Your task to perform on an android device: Open battery settings Image 0: 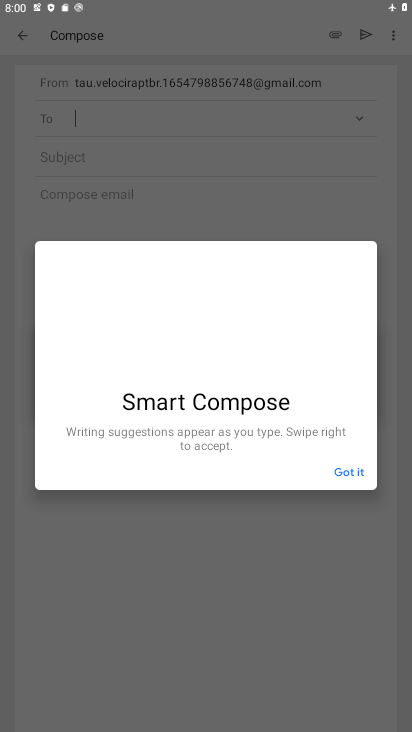
Step 0: press home button
Your task to perform on an android device: Open battery settings Image 1: 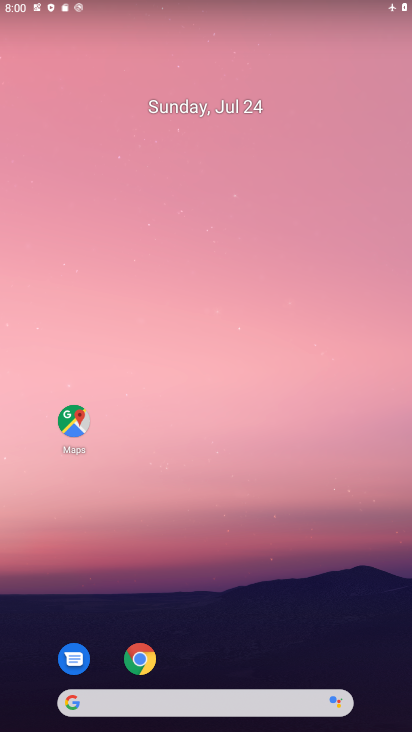
Step 1: drag from (230, 640) to (249, 187)
Your task to perform on an android device: Open battery settings Image 2: 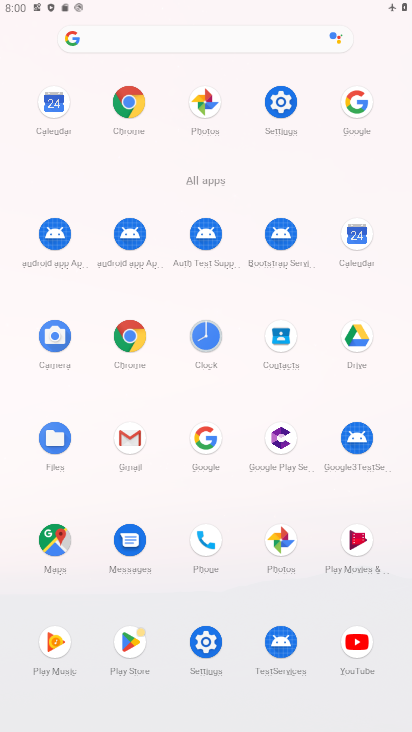
Step 2: click (284, 96)
Your task to perform on an android device: Open battery settings Image 3: 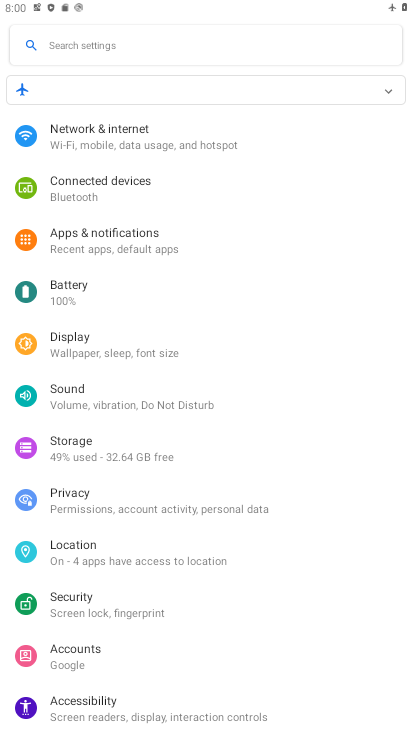
Step 3: click (61, 294)
Your task to perform on an android device: Open battery settings Image 4: 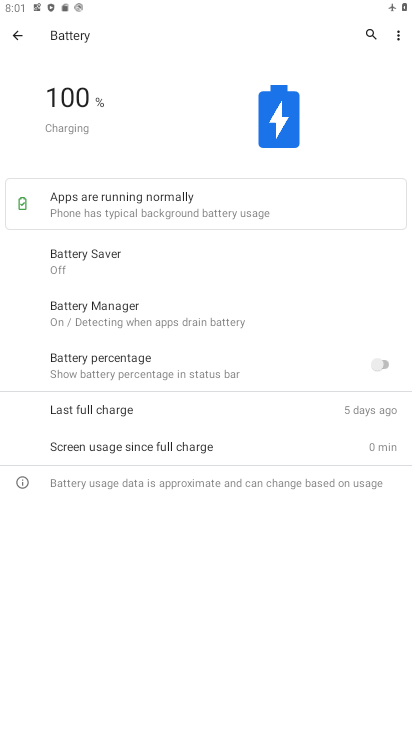
Step 4: task complete